Your task to perform on an android device: search for starred emails in the gmail app Image 0: 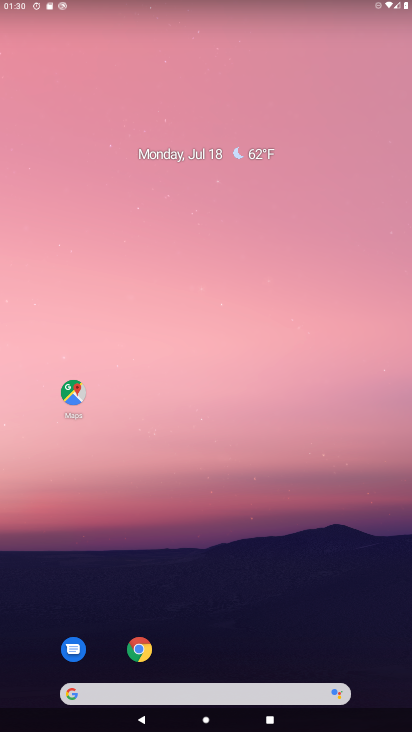
Step 0: drag from (39, 709) to (214, 278)
Your task to perform on an android device: search for starred emails in the gmail app Image 1: 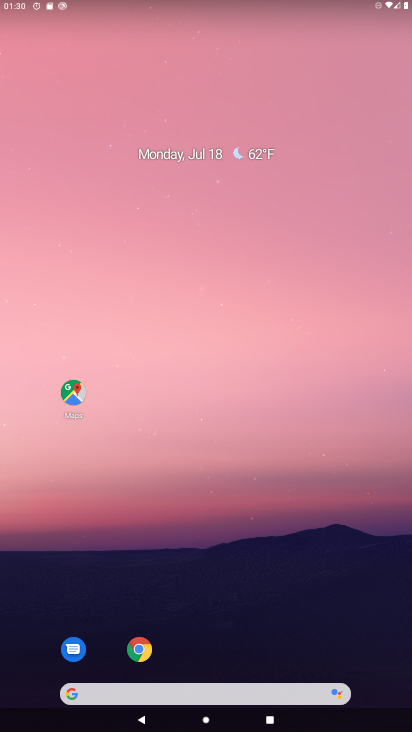
Step 1: drag from (16, 681) to (367, 51)
Your task to perform on an android device: search for starred emails in the gmail app Image 2: 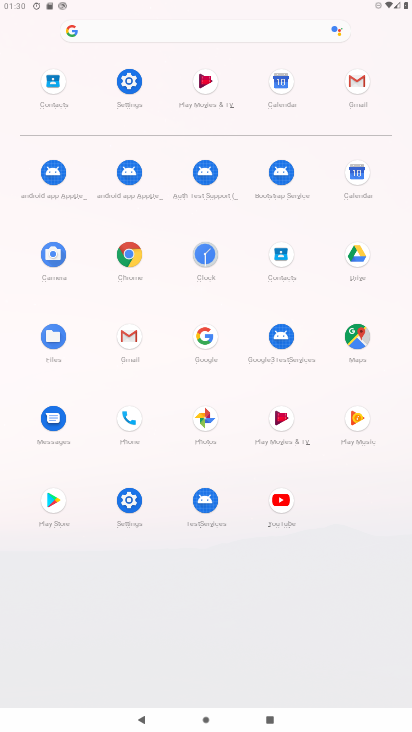
Step 2: click (120, 336)
Your task to perform on an android device: search for starred emails in the gmail app Image 3: 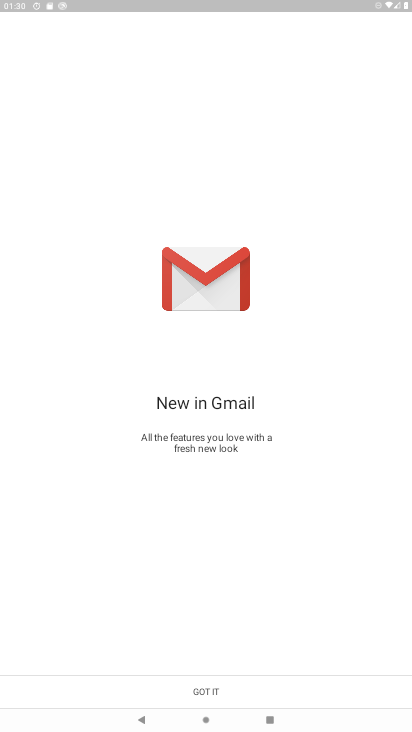
Step 3: click (187, 691)
Your task to perform on an android device: search for starred emails in the gmail app Image 4: 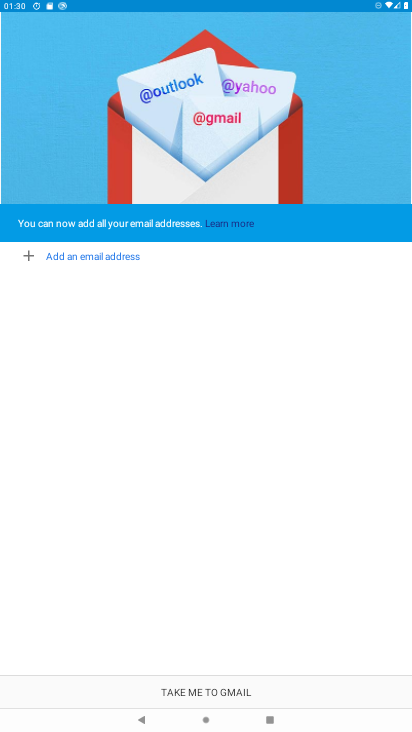
Step 4: click (182, 693)
Your task to perform on an android device: search for starred emails in the gmail app Image 5: 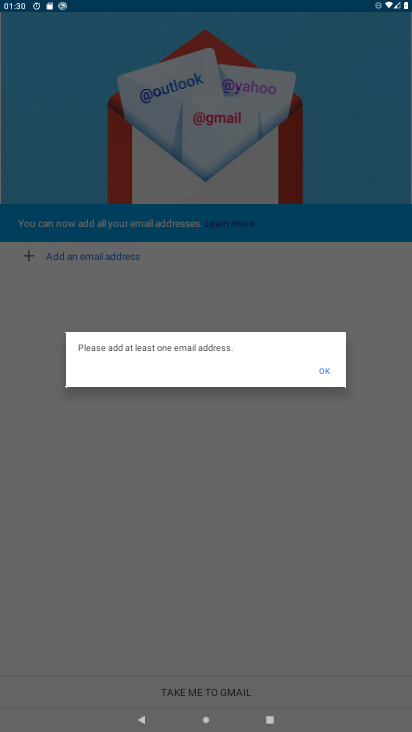
Step 5: click (321, 367)
Your task to perform on an android device: search for starred emails in the gmail app Image 6: 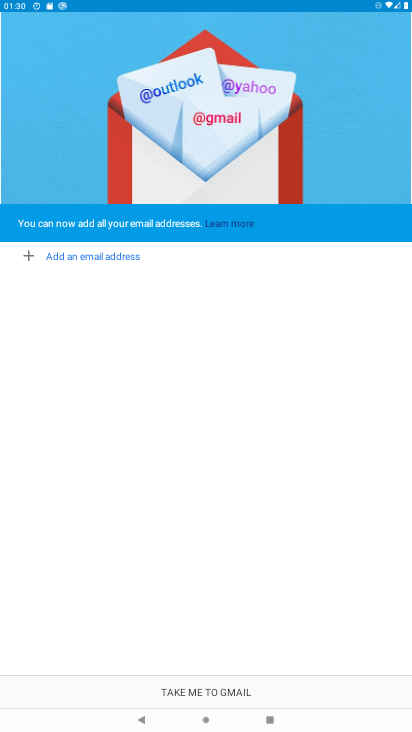
Step 6: click (204, 693)
Your task to perform on an android device: search for starred emails in the gmail app Image 7: 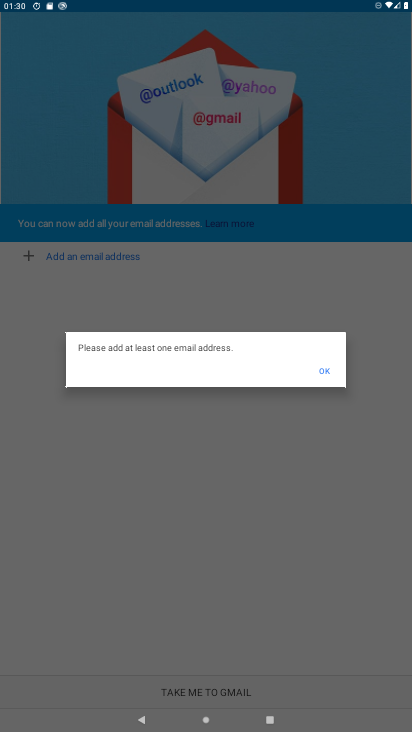
Step 7: click (328, 367)
Your task to perform on an android device: search for starred emails in the gmail app Image 8: 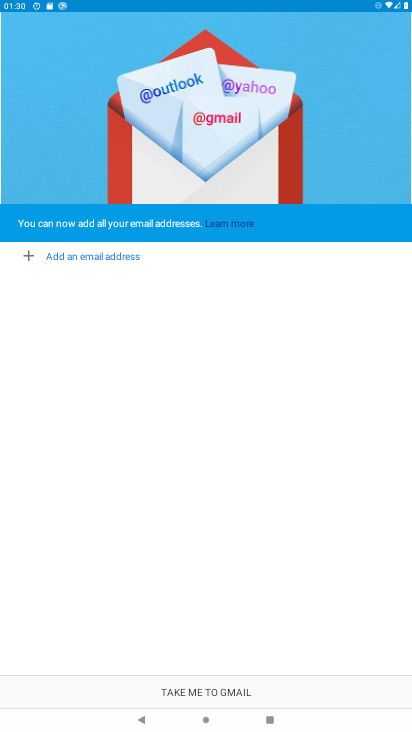
Step 8: task complete